Your task to perform on an android device: Show me popular games on the Play Store Image 0: 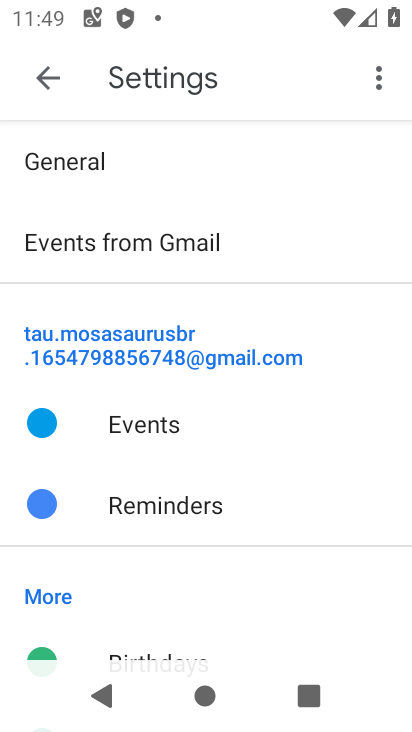
Step 0: press back button
Your task to perform on an android device: Show me popular games on the Play Store Image 1: 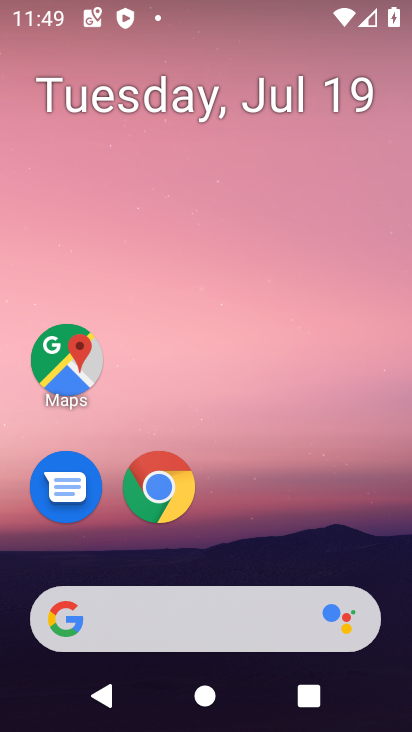
Step 1: drag from (245, 547) to (275, 5)
Your task to perform on an android device: Show me popular games on the Play Store Image 2: 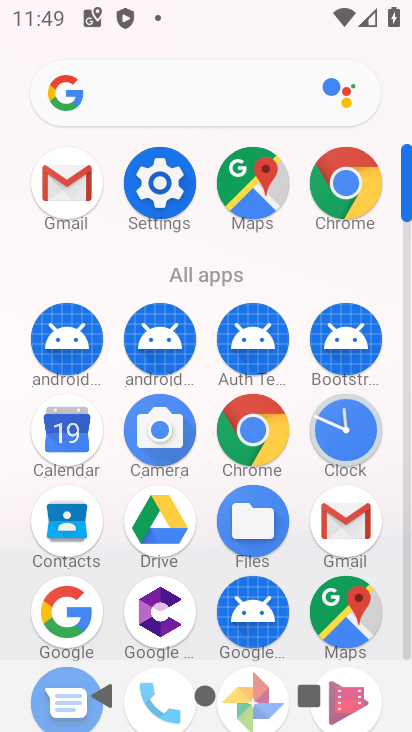
Step 2: drag from (220, 561) to (316, 113)
Your task to perform on an android device: Show me popular games on the Play Store Image 3: 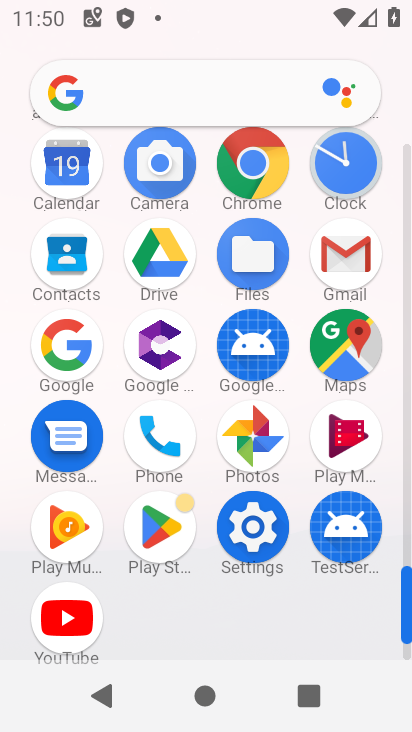
Step 3: click (160, 539)
Your task to perform on an android device: Show me popular games on the Play Store Image 4: 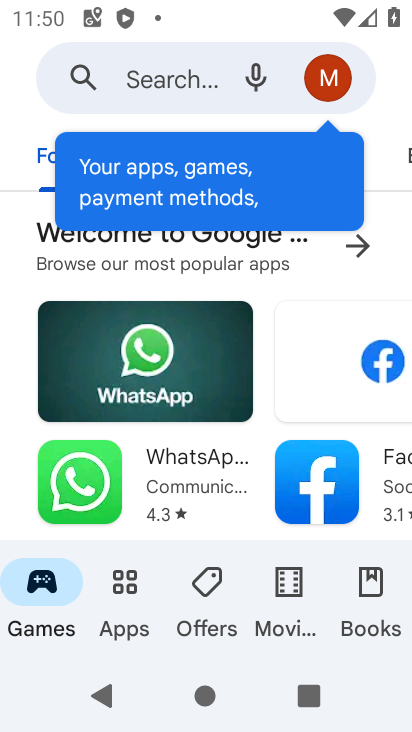
Step 4: drag from (139, 522) to (326, 14)
Your task to perform on an android device: Show me popular games on the Play Store Image 5: 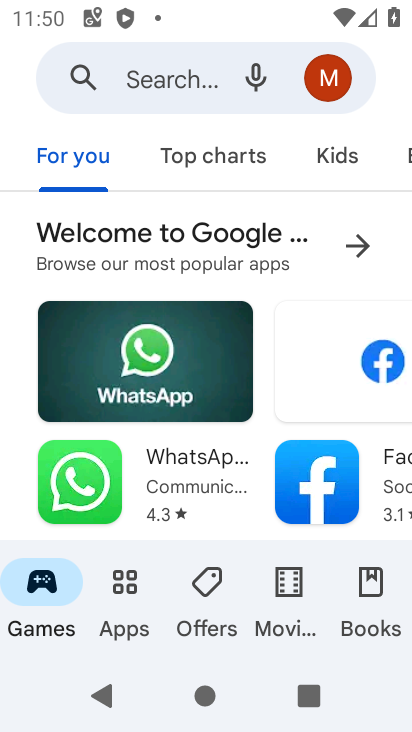
Step 5: drag from (208, 461) to (310, 40)
Your task to perform on an android device: Show me popular games on the Play Store Image 6: 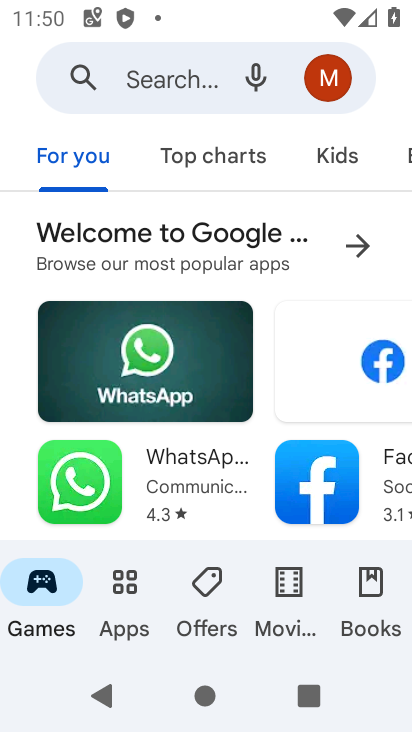
Step 6: drag from (18, 467) to (75, 77)
Your task to perform on an android device: Show me popular games on the Play Store Image 7: 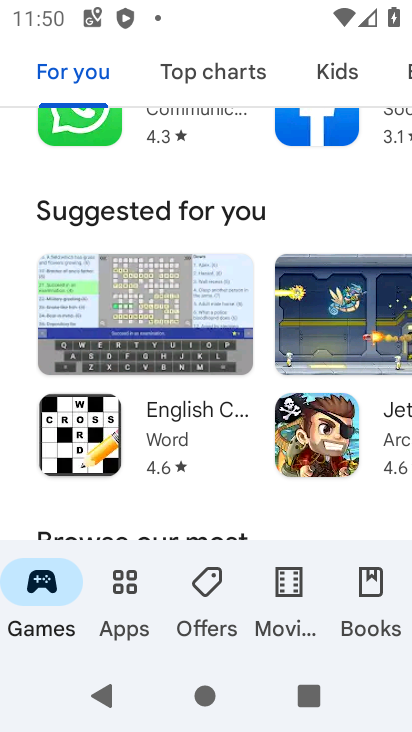
Step 7: drag from (21, 512) to (31, 40)
Your task to perform on an android device: Show me popular games on the Play Store Image 8: 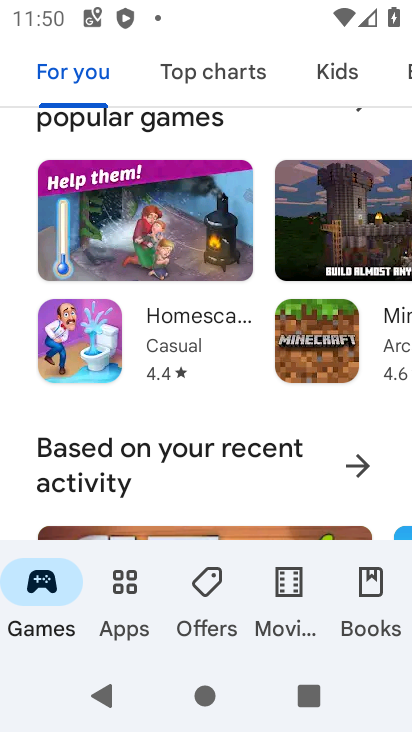
Step 8: drag from (10, 143) to (11, 452)
Your task to perform on an android device: Show me popular games on the Play Store Image 9: 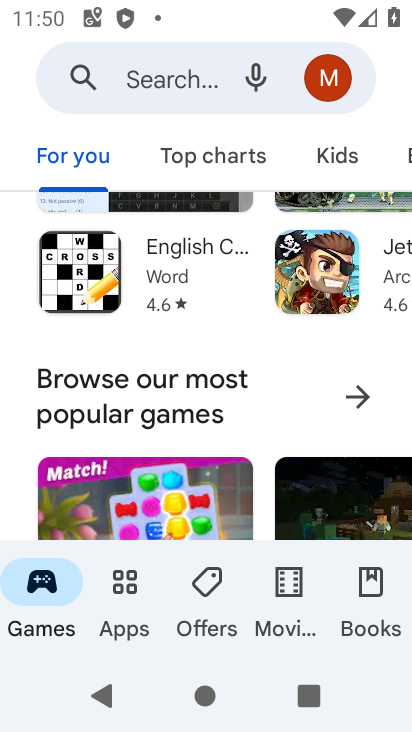
Step 9: click (365, 390)
Your task to perform on an android device: Show me popular games on the Play Store Image 10: 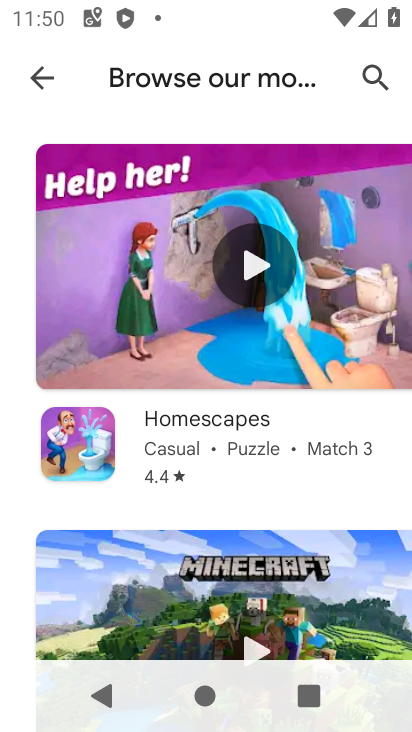
Step 10: task complete